Your task to perform on an android device: snooze an email in the gmail app Image 0: 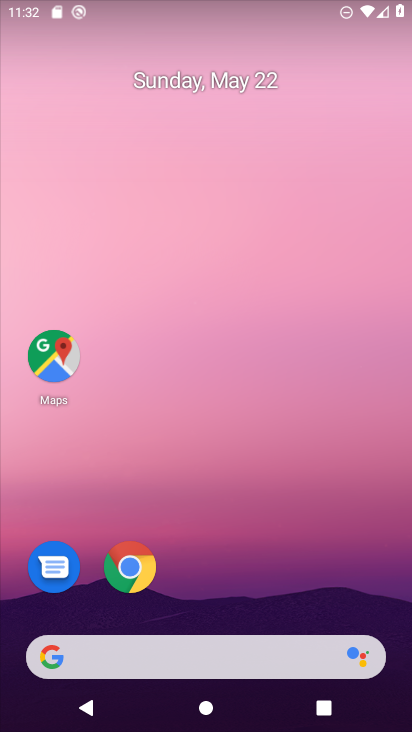
Step 0: drag from (214, 614) to (204, 89)
Your task to perform on an android device: snooze an email in the gmail app Image 1: 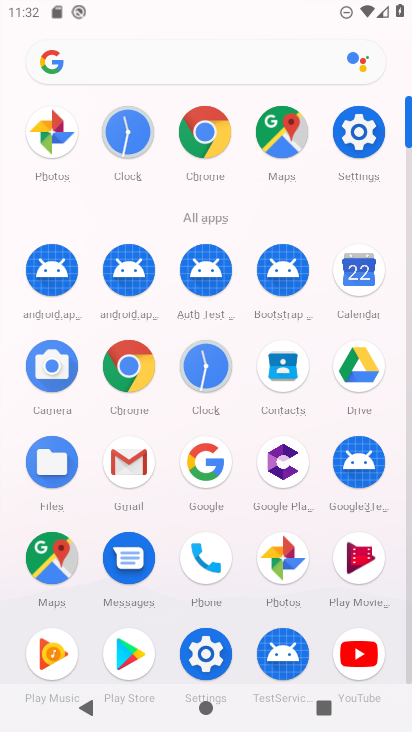
Step 1: click (108, 465)
Your task to perform on an android device: snooze an email in the gmail app Image 2: 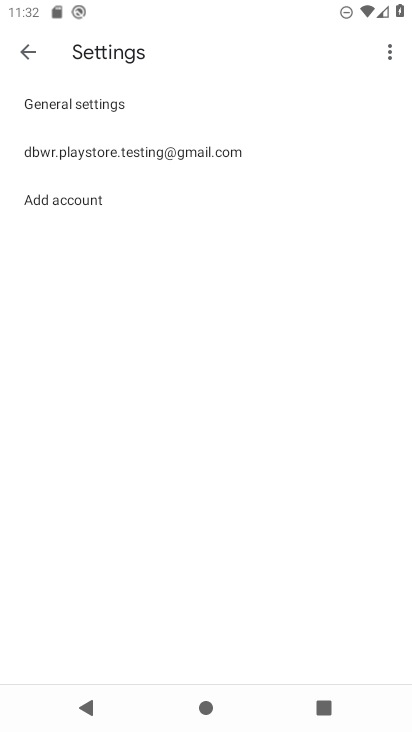
Step 2: click (29, 59)
Your task to perform on an android device: snooze an email in the gmail app Image 3: 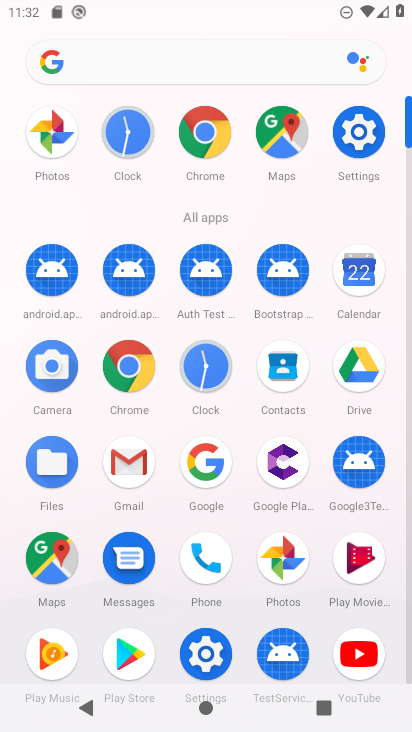
Step 3: click (150, 450)
Your task to perform on an android device: snooze an email in the gmail app Image 4: 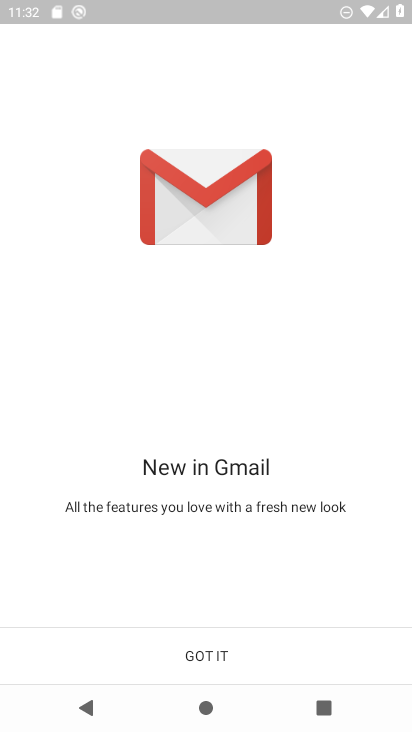
Step 4: click (200, 650)
Your task to perform on an android device: snooze an email in the gmail app Image 5: 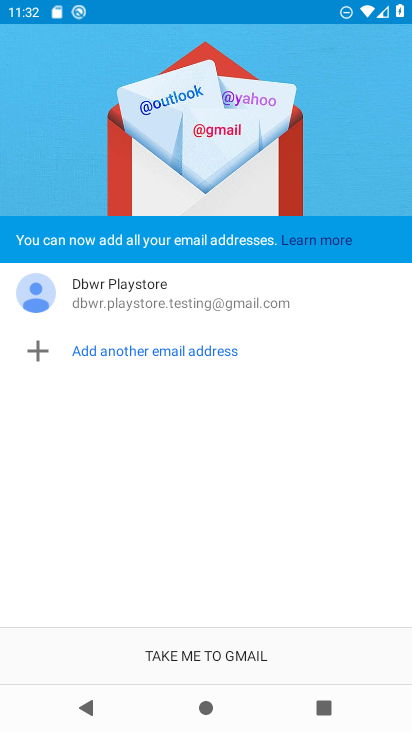
Step 5: click (193, 647)
Your task to perform on an android device: snooze an email in the gmail app Image 6: 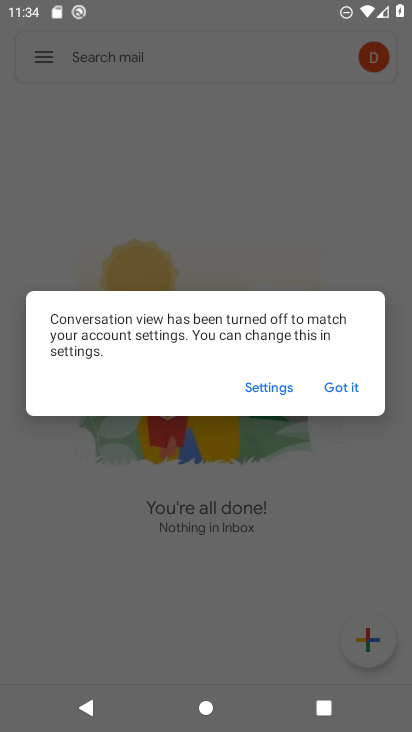
Step 6: task complete